Your task to perform on an android device: Add razer blade to the cart on walmart.com, then select checkout. Image 0: 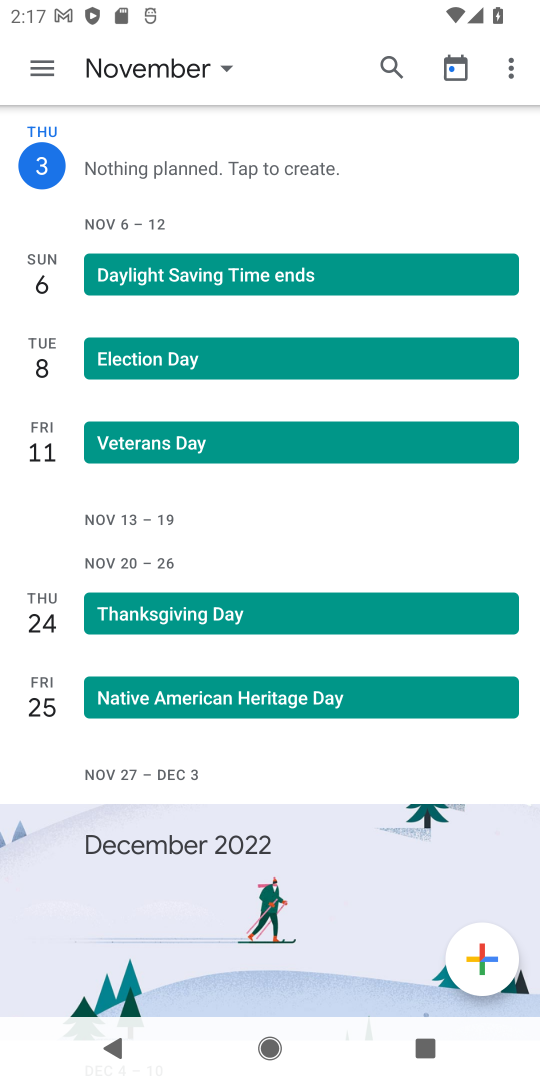
Step 0: press home button
Your task to perform on an android device: Add razer blade to the cart on walmart.com, then select checkout. Image 1: 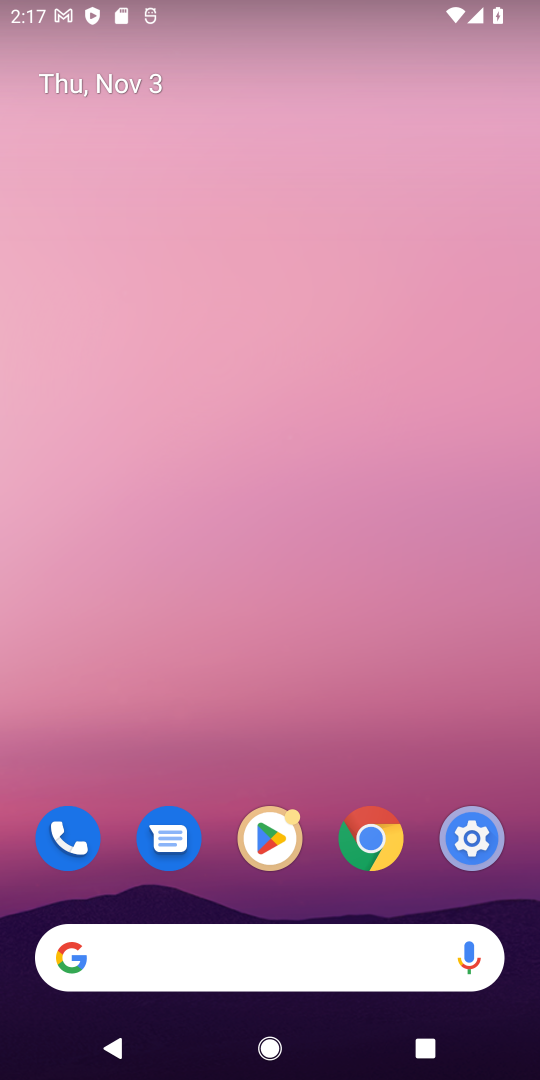
Step 1: drag from (329, 913) to (258, 70)
Your task to perform on an android device: Add razer blade to the cart on walmart.com, then select checkout. Image 2: 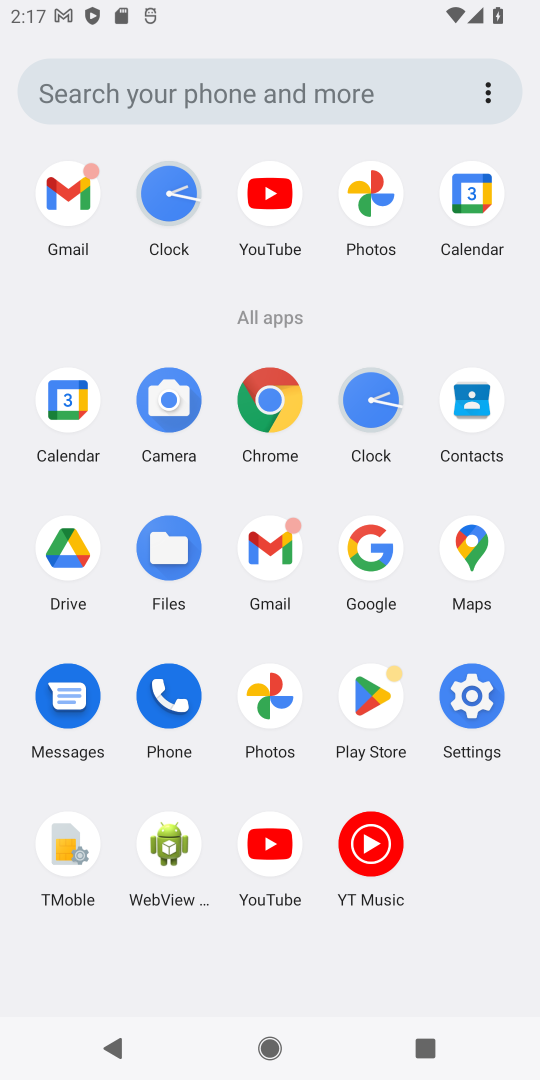
Step 2: click (288, 378)
Your task to perform on an android device: Add razer blade to the cart on walmart.com, then select checkout. Image 3: 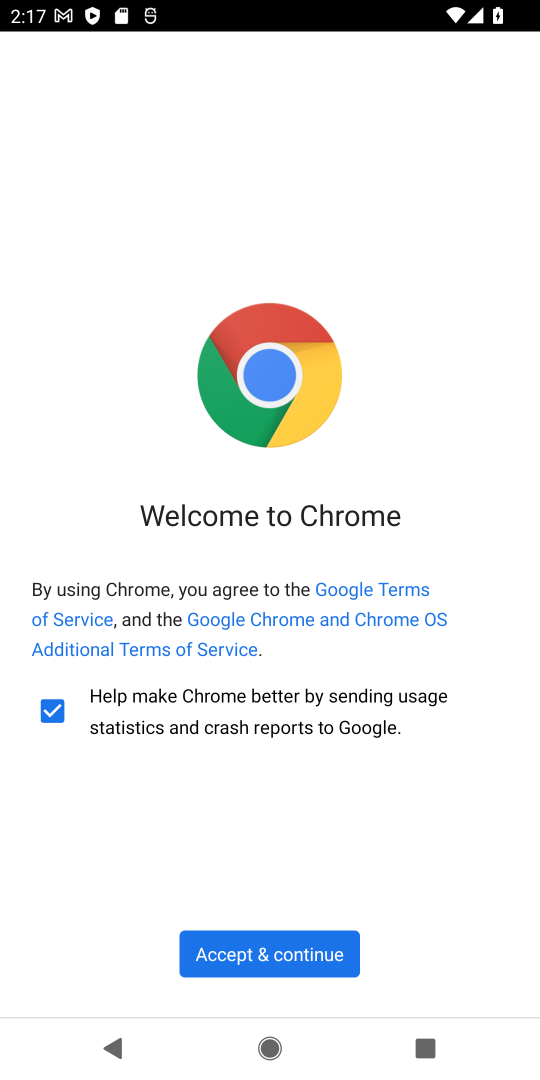
Step 3: click (259, 953)
Your task to perform on an android device: Add razer blade to the cart on walmart.com, then select checkout. Image 4: 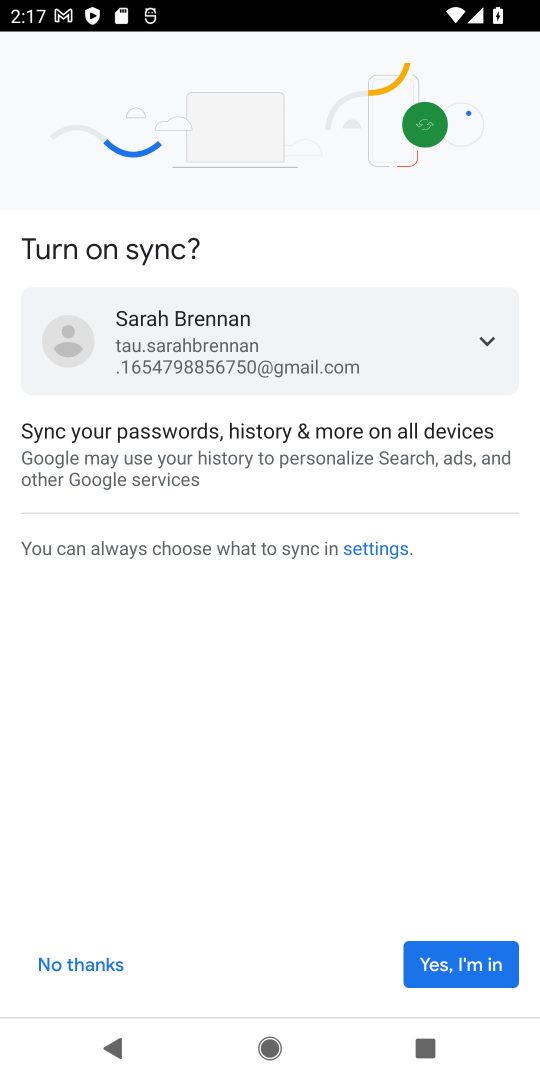
Step 4: click (442, 969)
Your task to perform on an android device: Add razer blade to the cart on walmart.com, then select checkout. Image 5: 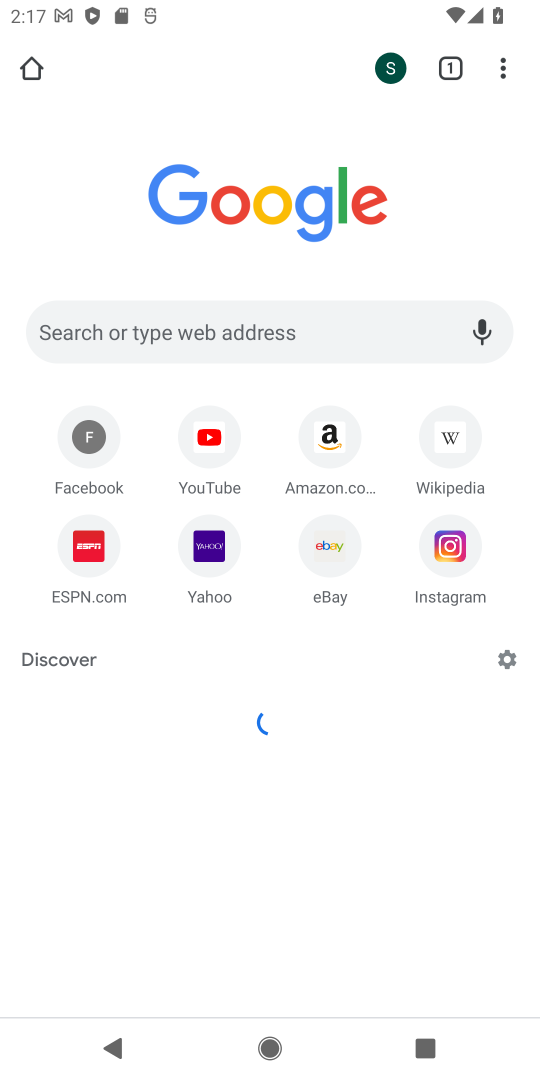
Step 5: click (216, 319)
Your task to perform on an android device: Add razer blade to the cart on walmart.com, then select checkout. Image 6: 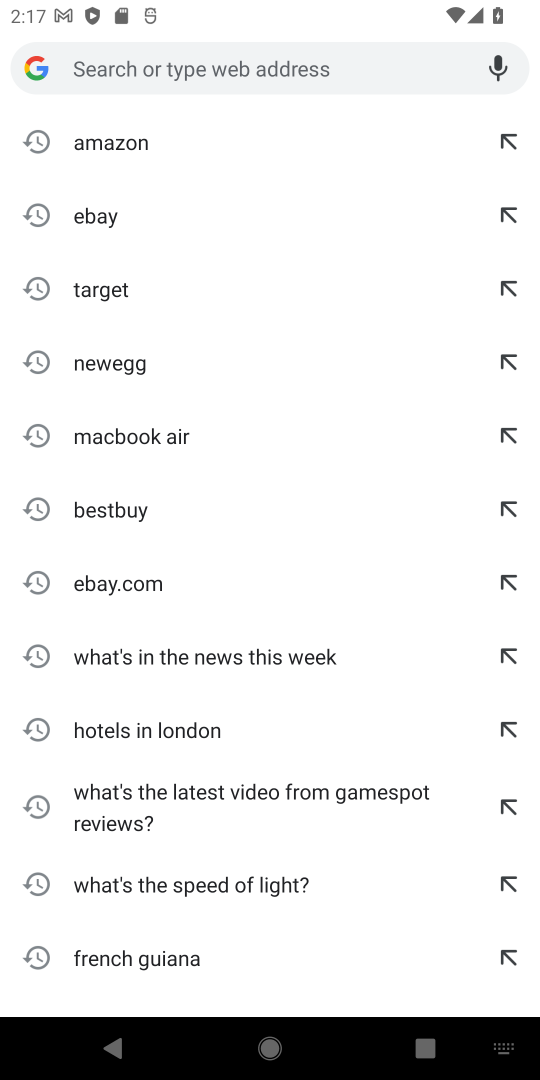
Step 6: type "walmart.ocm"
Your task to perform on an android device: Add razer blade to the cart on walmart.com, then select checkout. Image 7: 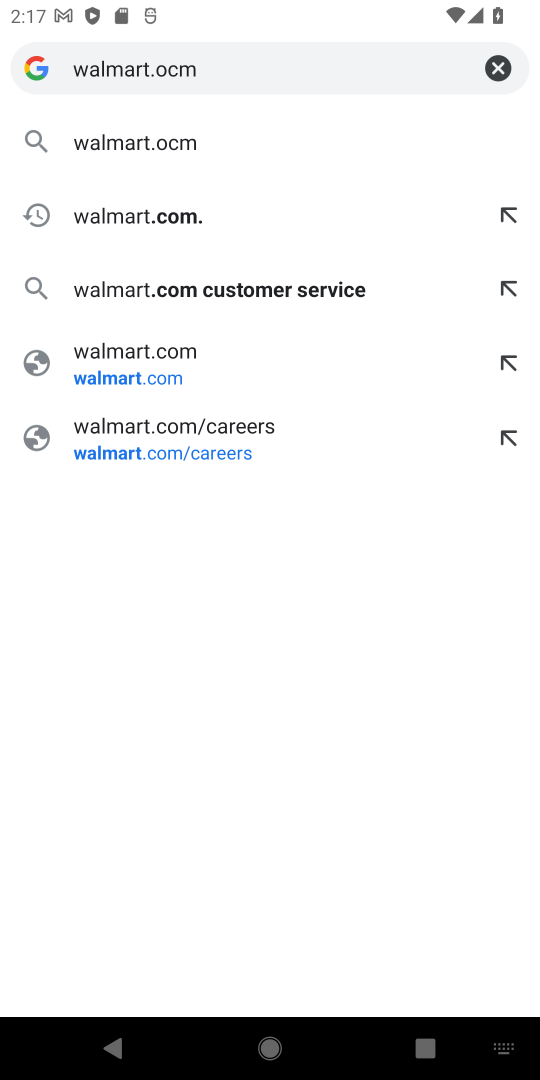
Step 7: click (142, 219)
Your task to perform on an android device: Add razer blade to the cart on walmart.com, then select checkout. Image 8: 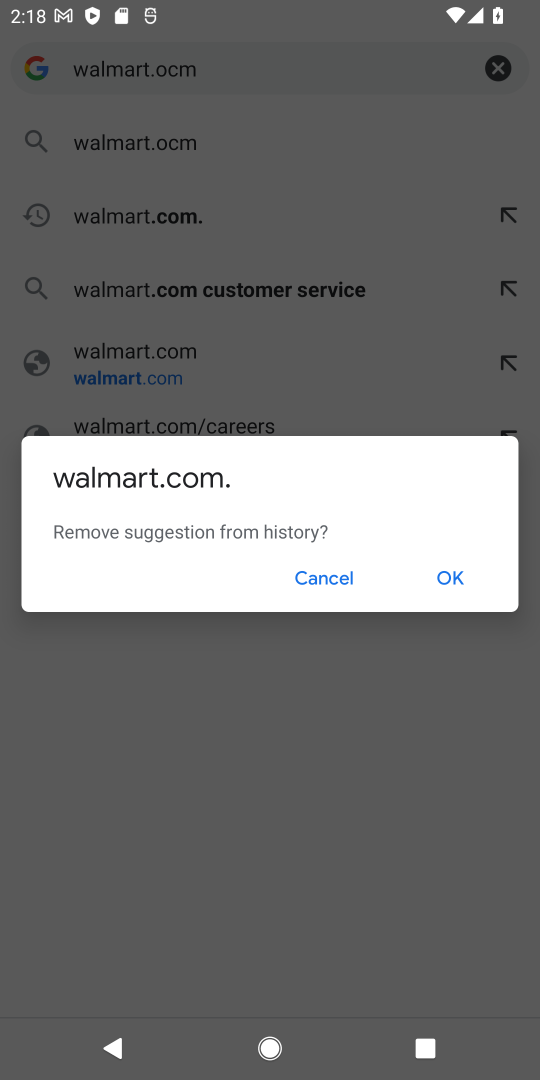
Step 8: click (313, 577)
Your task to perform on an android device: Add razer blade to the cart on walmart.com, then select checkout. Image 9: 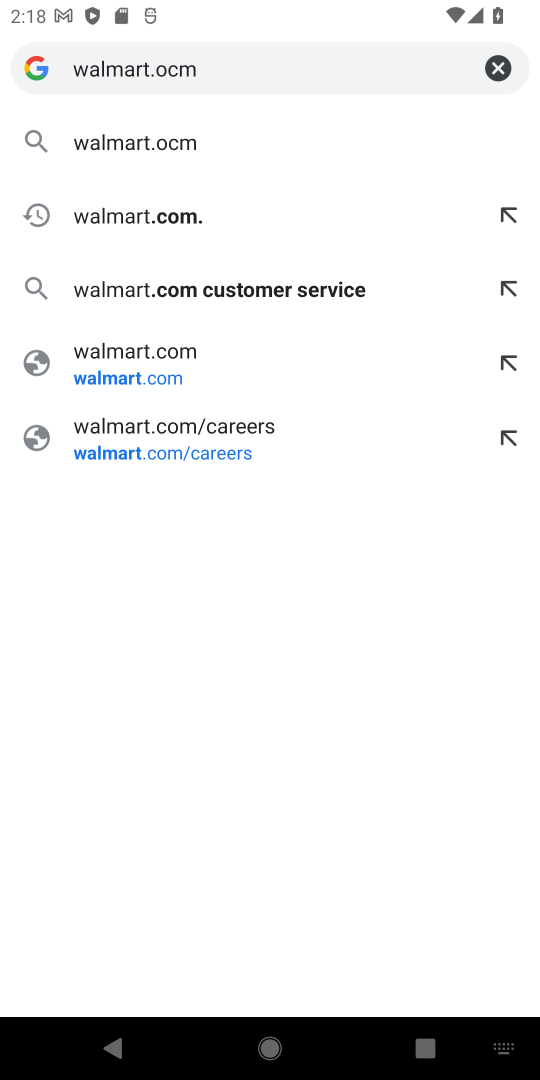
Step 9: click (146, 385)
Your task to perform on an android device: Add razer blade to the cart on walmart.com, then select checkout. Image 10: 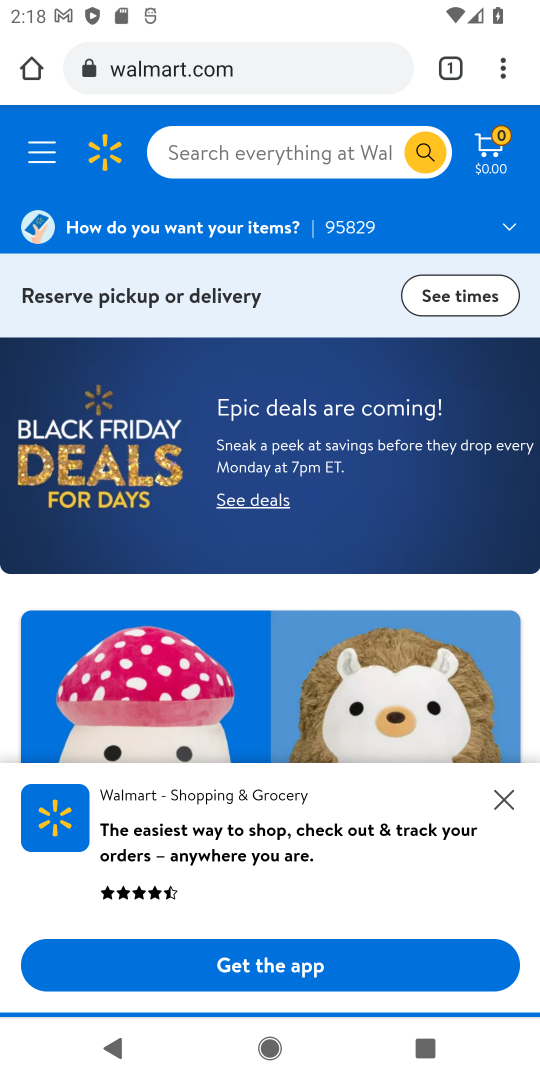
Step 10: click (224, 144)
Your task to perform on an android device: Add razer blade to the cart on walmart.com, then select checkout. Image 11: 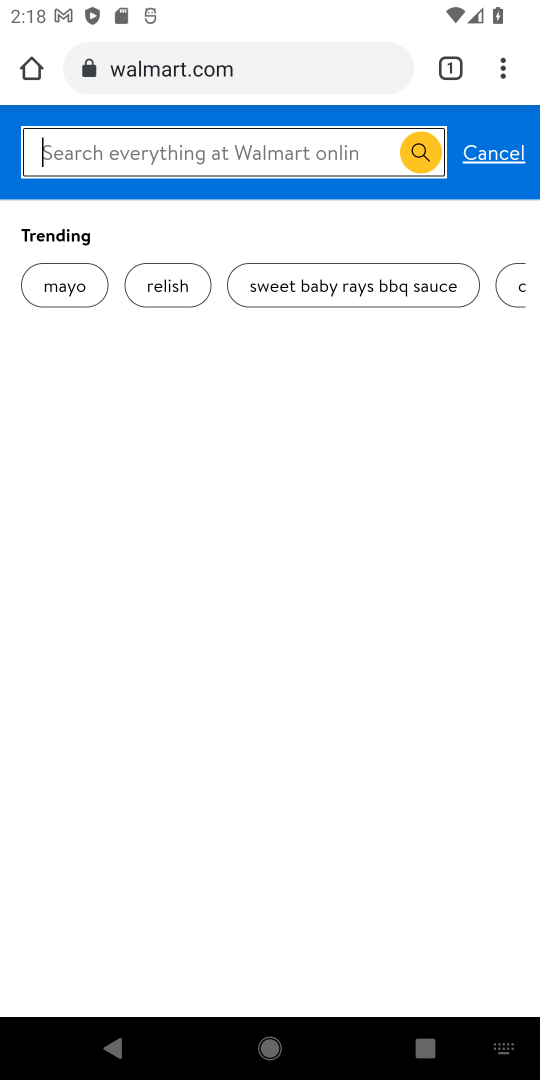
Step 11: type "razer blade"
Your task to perform on an android device: Add razer blade to the cart on walmart.com, then select checkout. Image 12: 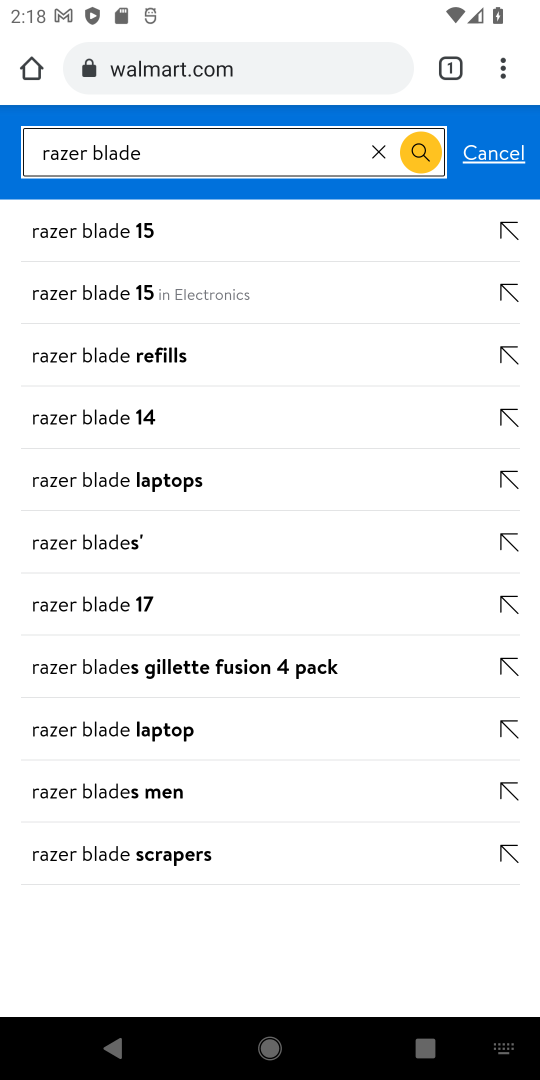
Step 12: press enter
Your task to perform on an android device: Add razer blade to the cart on walmart.com, then select checkout. Image 13: 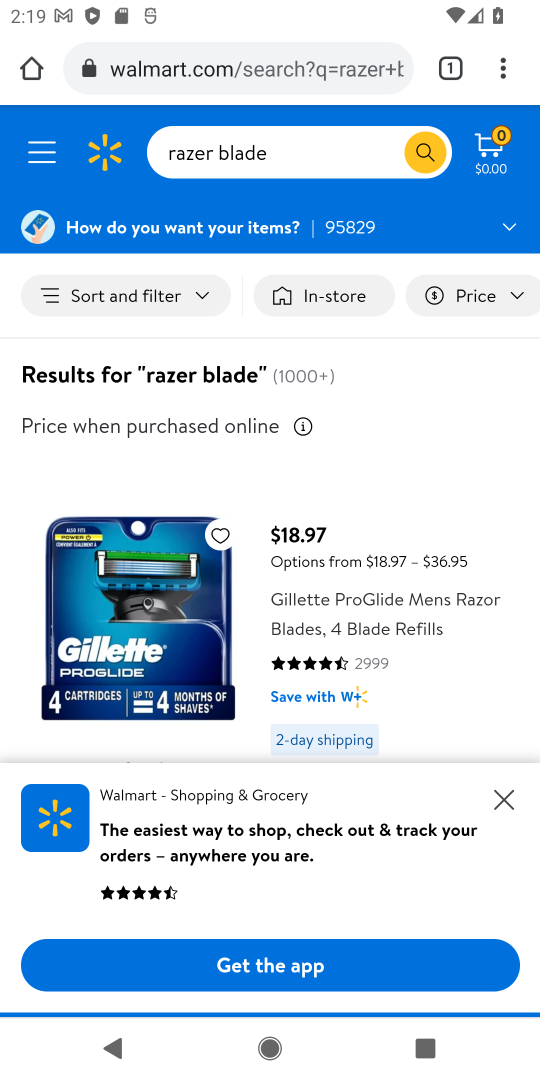
Step 13: drag from (185, 677) to (147, 487)
Your task to perform on an android device: Add razer blade to the cart on walmart.com, then select checkout. Image 14: 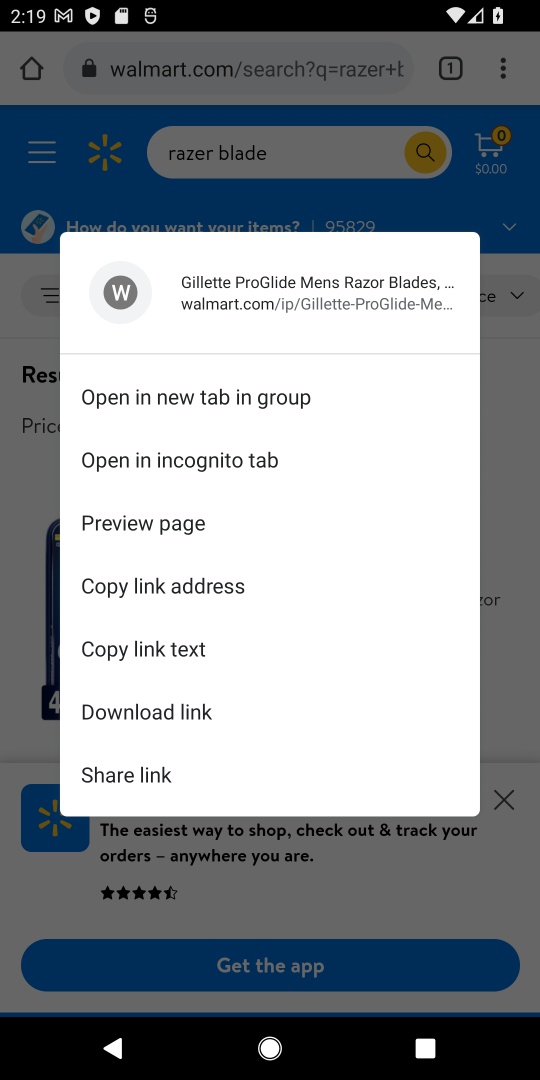
Step 14: click (289, 113)
Your task to perform on an android device: Add razer blade to the cart on walmart.com, then select checkout. Image 15: 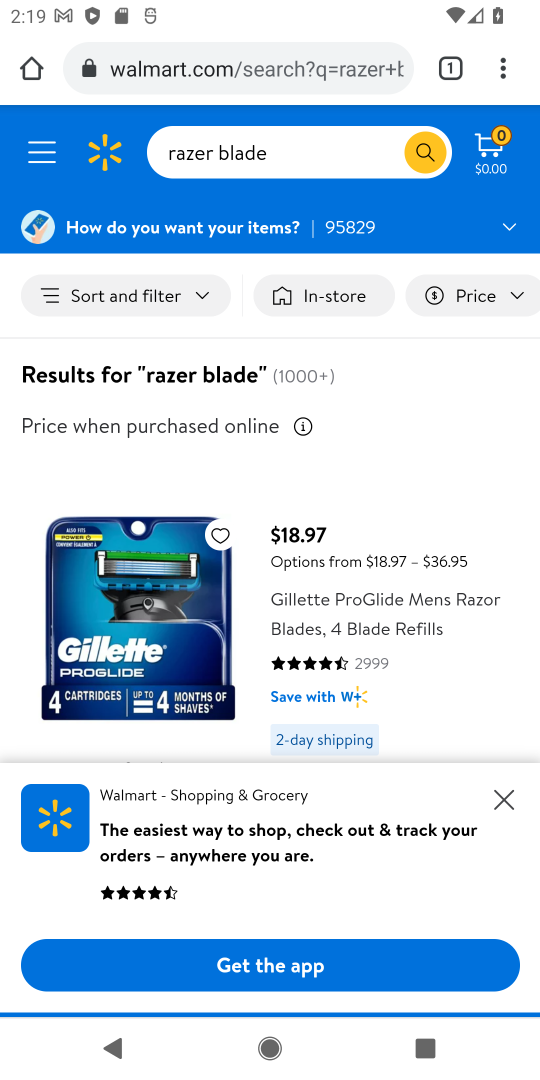
Step 15: click (352, 627)
Your task to perform on an android device: Add razer blade to the cart on walmart.com, then select checkout. Image 16: 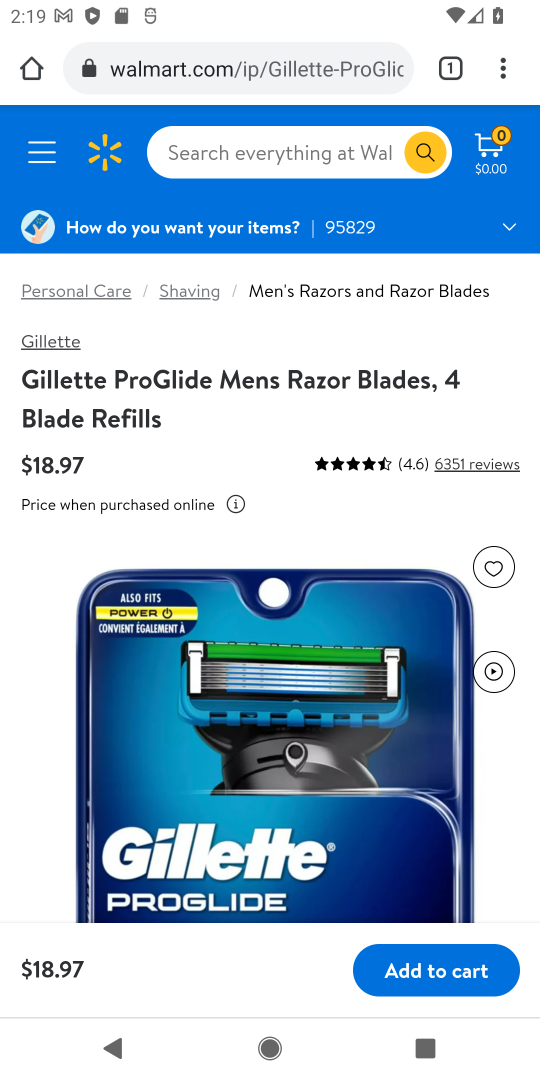
Step 16: click (424, 978)
Your task to perform on an android device: Add razer blade to the cart on walmart.com, then select checkout. Image 17: 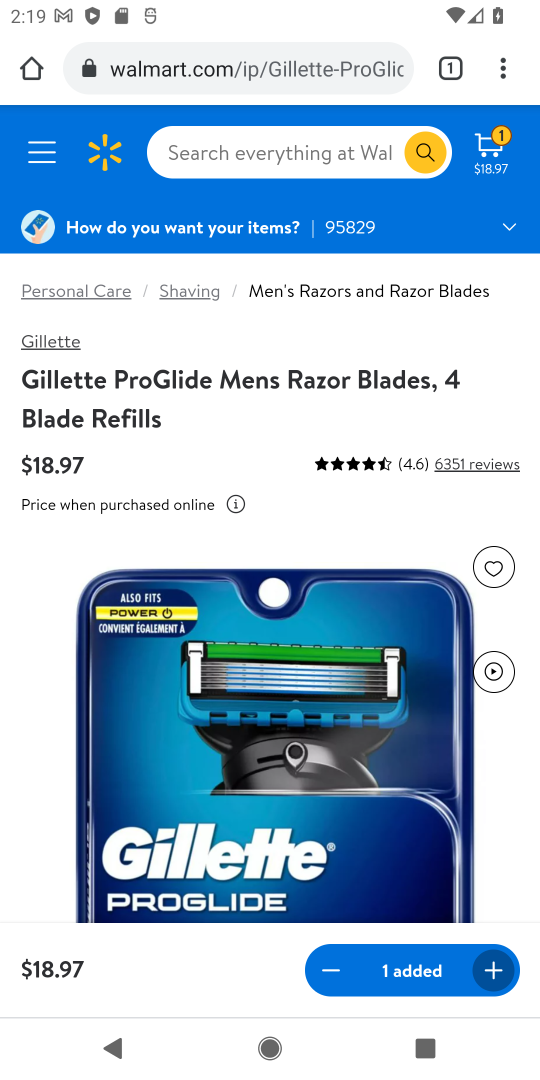
Step 17: click (489, 137)
Your task to perform on an android device: Add razer blade to the cart on walmart.com, then select checkout. Image 18: 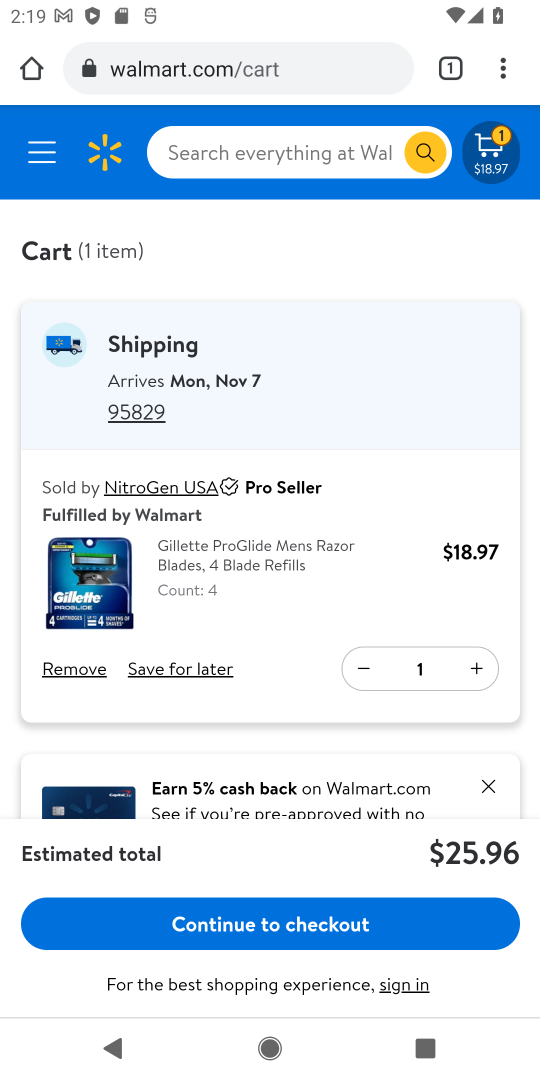
Step 18: click (491, 157)
Your task to perform on an android device: Add razer blade to the cart on walmart.com, then select checkout. Image 19: 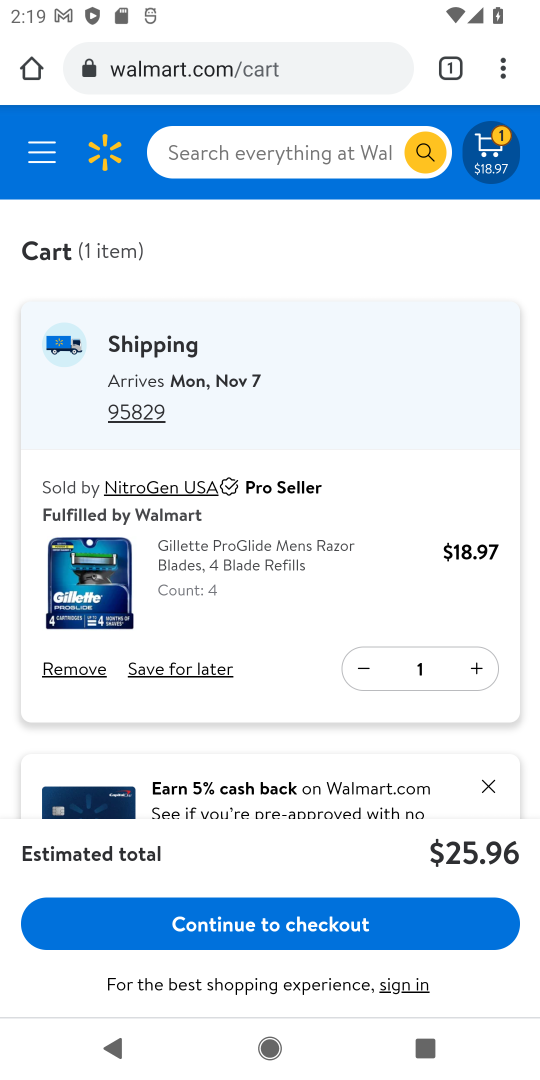
Step 19: click (265, 934)
Your task to perform on an android device: Add razer blade to the cart on walmart.com, then select checkout. Image 20: 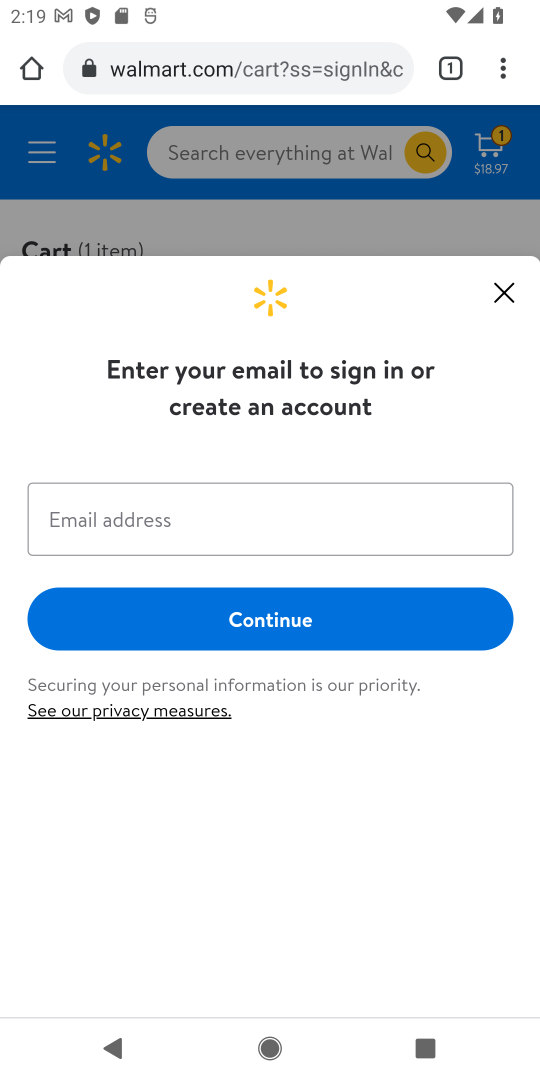
Step 20: task complete